Your task to perform on an android device: Open Google Chrome and click the shortcut for Amazon.com Image 0: 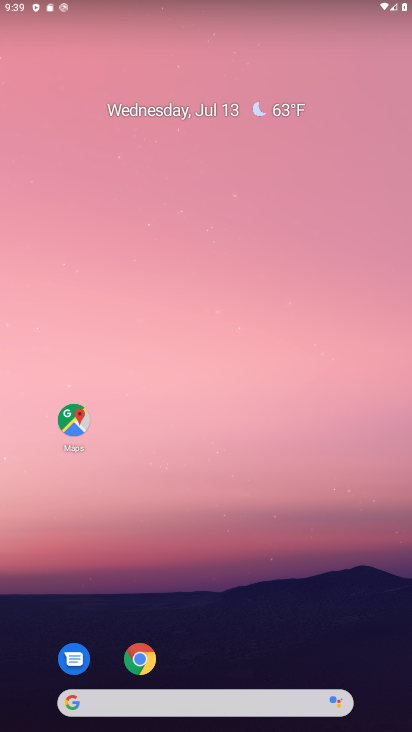
Step 0: drag from (184, 669) to (260, 92)
Your task to perform on an android device: Open Google Chrome and click the shortcut for Amazon.com Image 1: 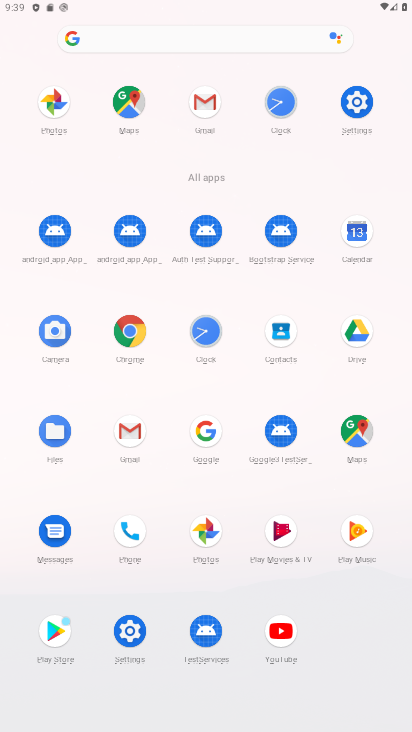
Step 1: click (128, 336)
Your task to perform on an android device: Open Google Chrome and click the shortcut for Amazon.com Image 2: 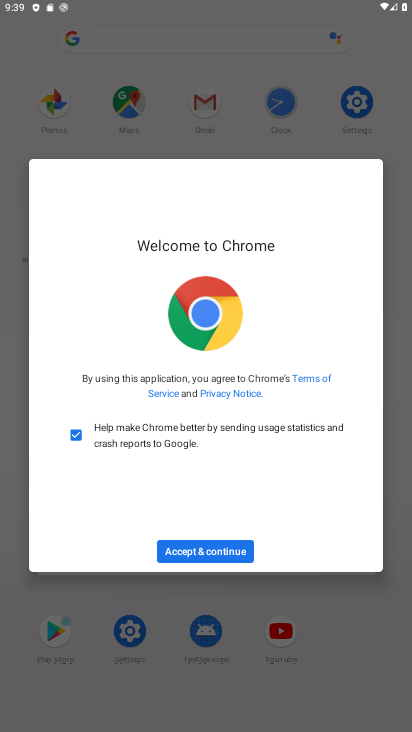
Step 2: click (169, 548)
Your task to perform on an android device: Open Google Chrome and click the shortcut for Amazon.com Image 3: 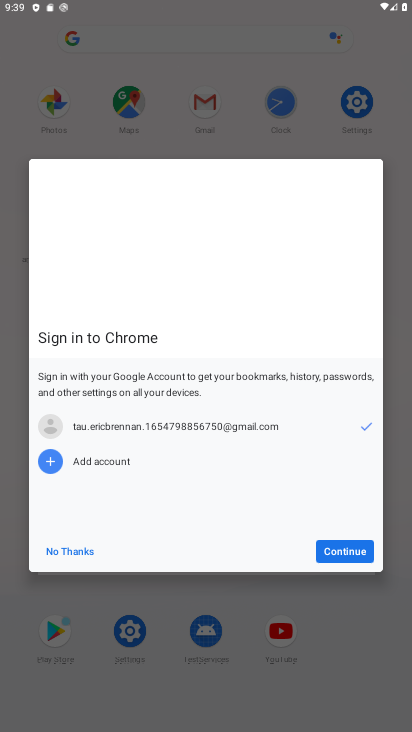
Step 3: click (337, 549)
Your task to perform on an android device: Open Google Chrome and click the shortcut for Amazon.com Image 4: 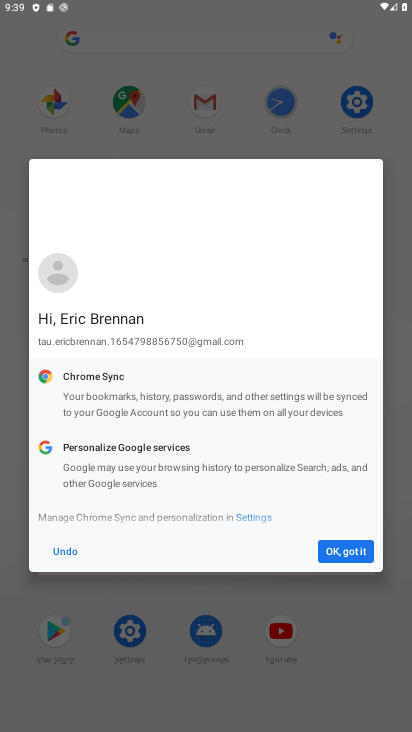
Step 4: click (365, 550)
Your task to perform on an android device: Open Google Chrome and click the shortcut for Amazon.com Image 5: 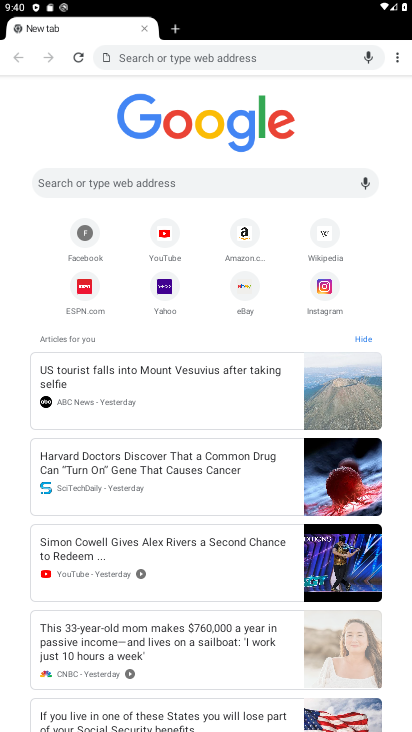
Step 5: click (251, 238)
Your task to perform on an android device: Open Google Chrome and click the shortcut for Amazon.com Image 6: 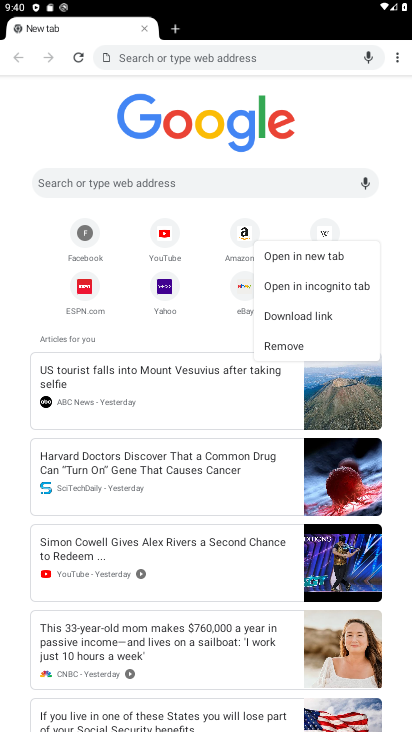
Step 6: click (243, 232)
Your task to perform on an android device: Open Google Chrome and click the shortcut for Amazon.com Image 7: 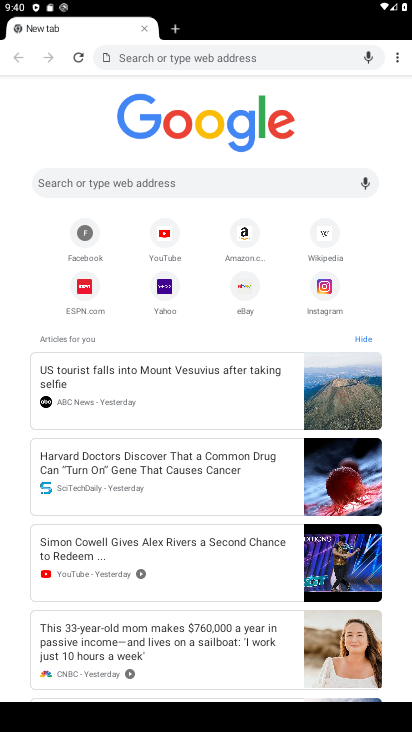
Step 7: click (243, 236)
Your task to perform on an android device: Open Google Chrome and click the shortcut for Amazon.com Image 8: 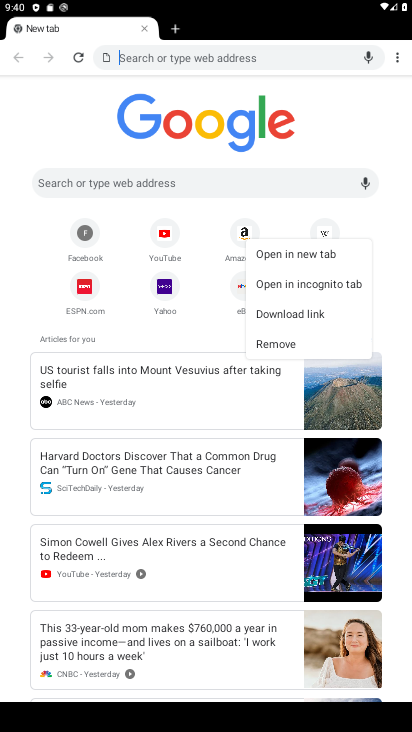
Step 8: click (243, 236)
Your task to perform on an android device: Open Google Chrome and click the shortcut for Amazon.com Image 9: 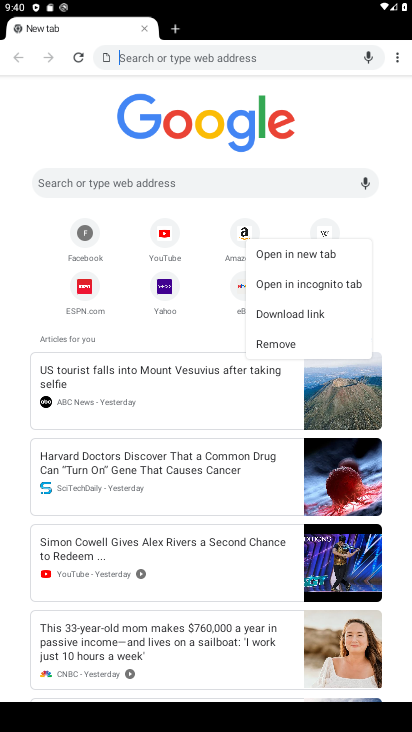
Step 9: click (241, 238)
Your task to perform on an android device: Open Google Chrome and click the shortcut for Amazon.com Image 10: 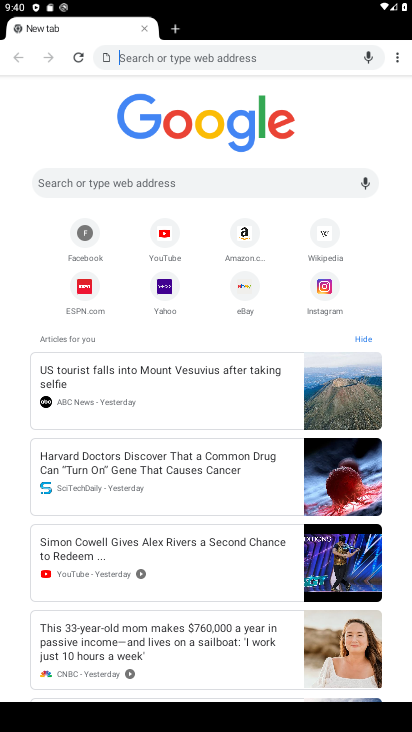
Step 10: click (242, 238)
Your task to perform on an android device: Open Google Chrome and click the shortcut for Amazon.com Image 11: 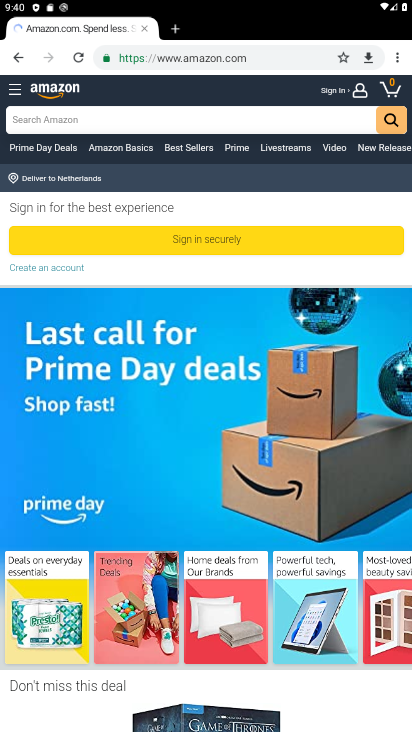
Step 11: task complete